Your task to perform on an android device: Open Google Maps Image 0: 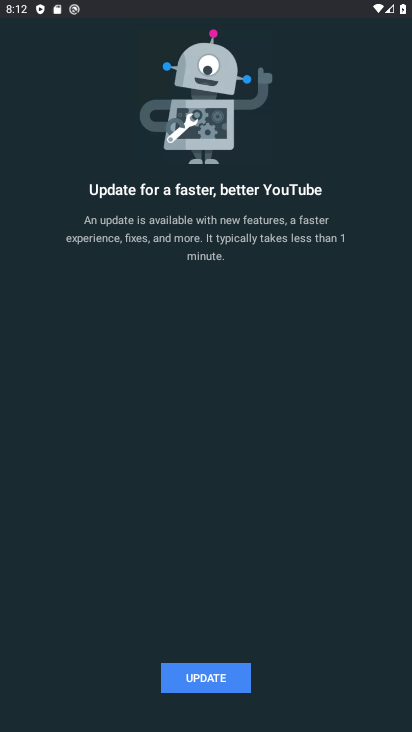
Step 0: press home button
Your task to perform on an android device: Open Google Maps Image 1: 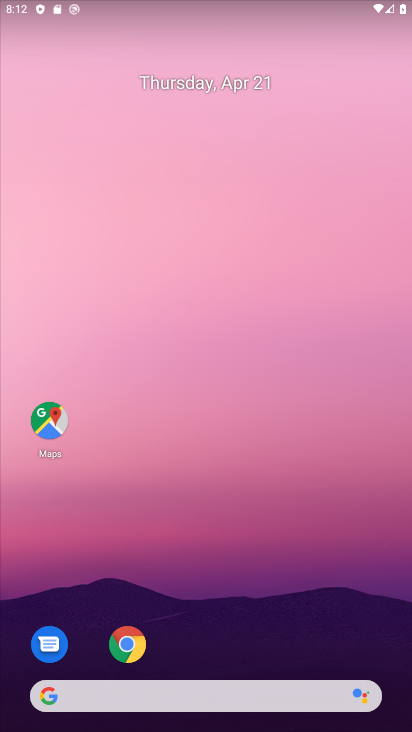
Step 1: click (45, 411)
Your task to perform on an android device: Open Google Maps Image 2: 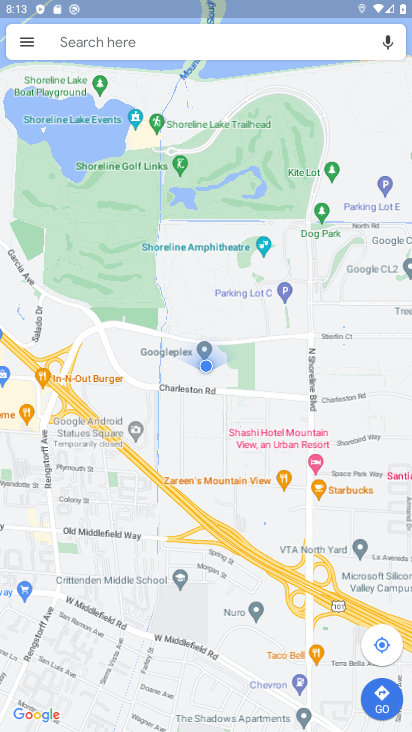
Step 2: task complete